Your task to perform on an android device: change text size in settings app Image 0: 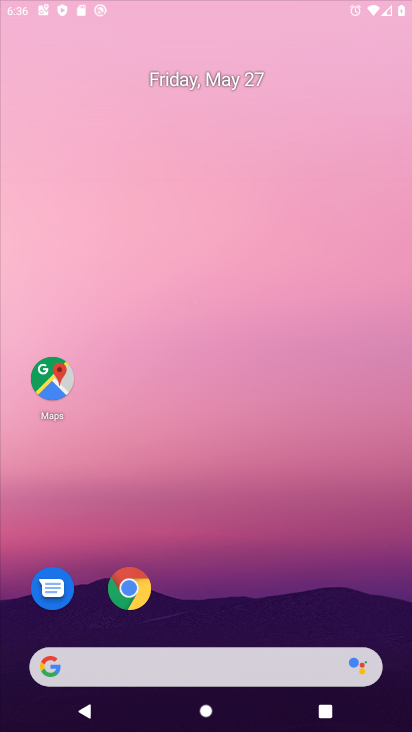
Step 0: drag from (365, 546) to (307, 137)
Your task to perform on an android device: change text size in settings app Image 1: 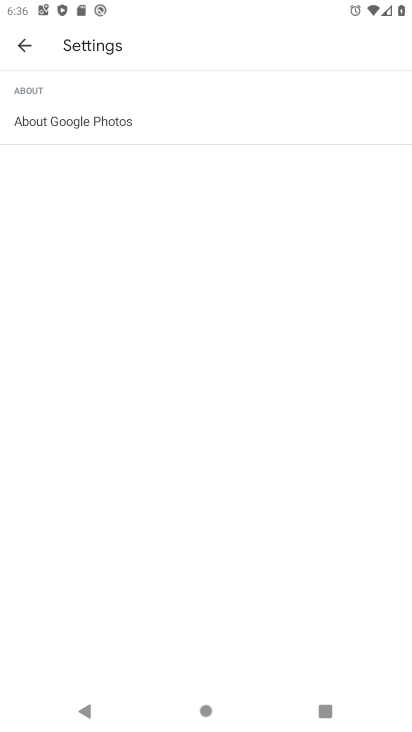
Step 1: press home button
Your task to perform on an android device: change text size in settings app Image 2: 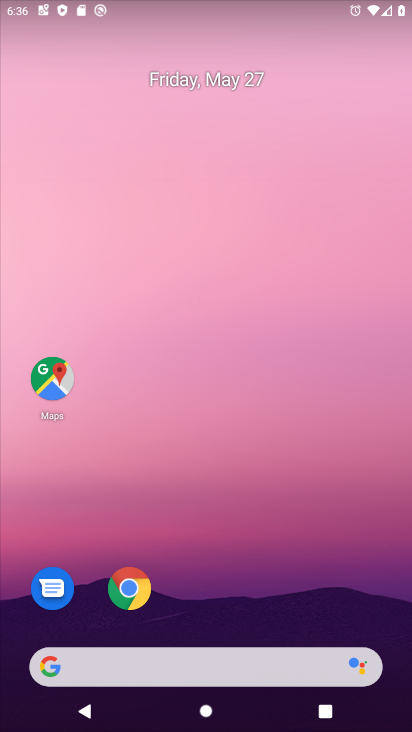
Step 2: drag from (317, 570) to (298, 243)
Your task to perform on an android device: change text size in settings app Image 3: 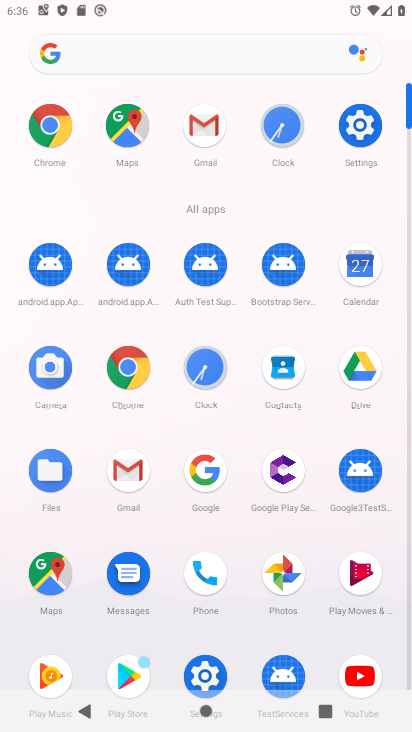
Step 3: click (193, 657)
Your task to perform on an android device: change text size in settings app Image 4: 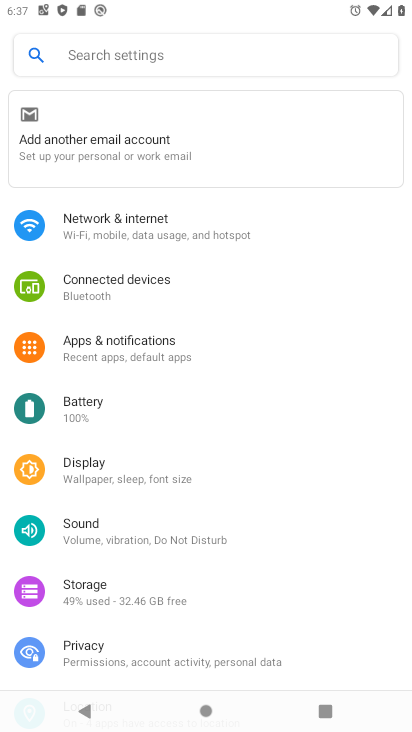
Step 4: click (125, 462)
Your task to perform on an android device: change text size in settings app Image 5: 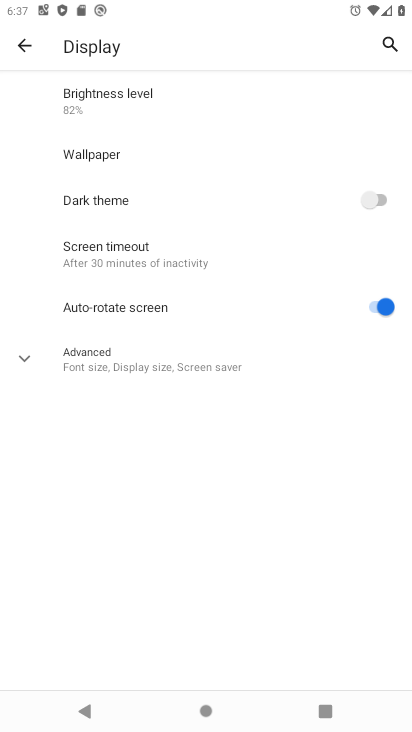
Step 5: click (139, 372)
Your task to perform on an android device: change text size in settings app Image 6: 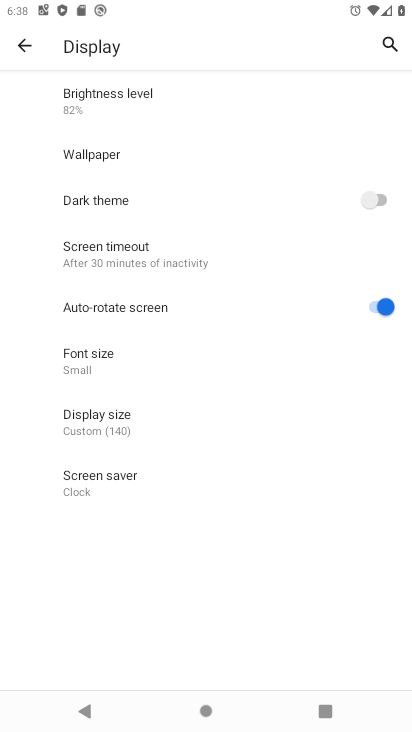
Step 6: click (106, 334)
Your task to perform on an android device: change text size in settings app Image 7: 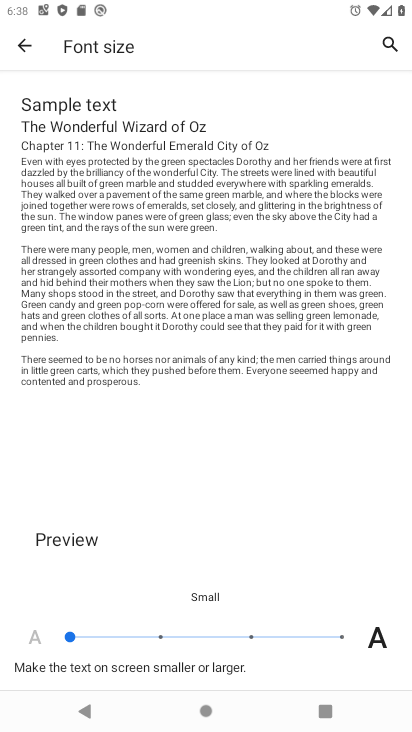
Step 7: click (391, 633)
Your task to perform on an android device: change text size in settings app Image 8: 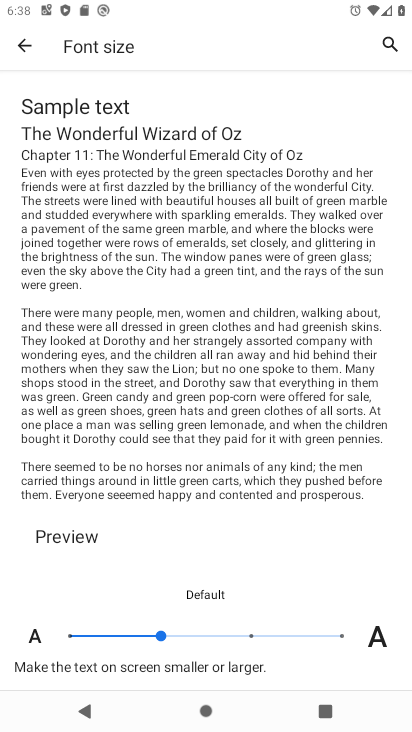
Step 8: task complete